Your task to perform on an android device: install app "WhatsApp Messenger" Image 0: 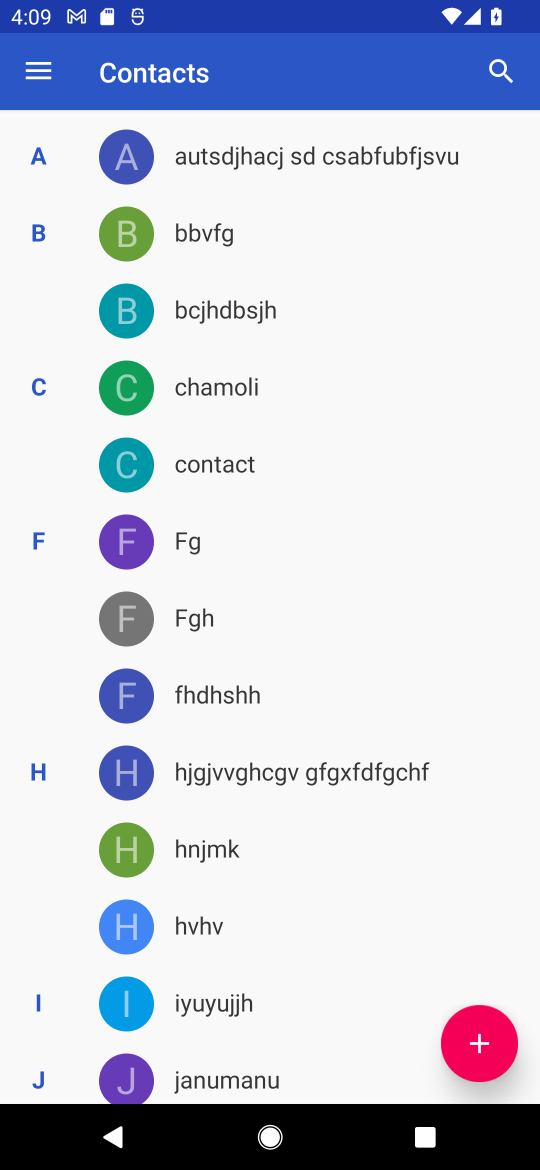
Step 0: press home button
Your task to perform on an android device: install app "WhatsApp Messenger" Image 1: 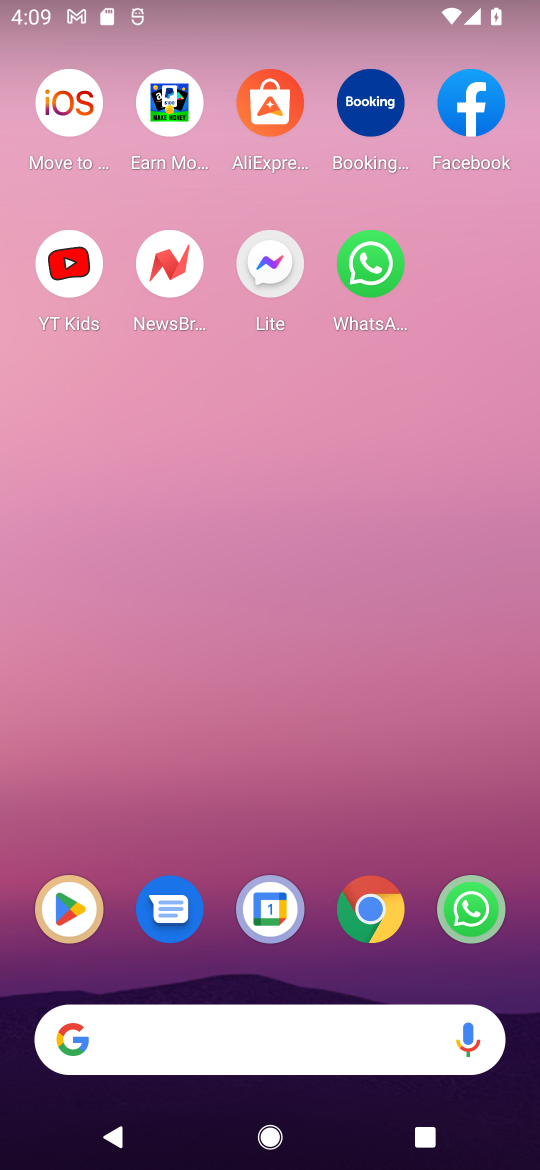
Step 1: click (68, 910)
Your task to perform on an android device: install app "WhatsApp Messenger" Image 2: 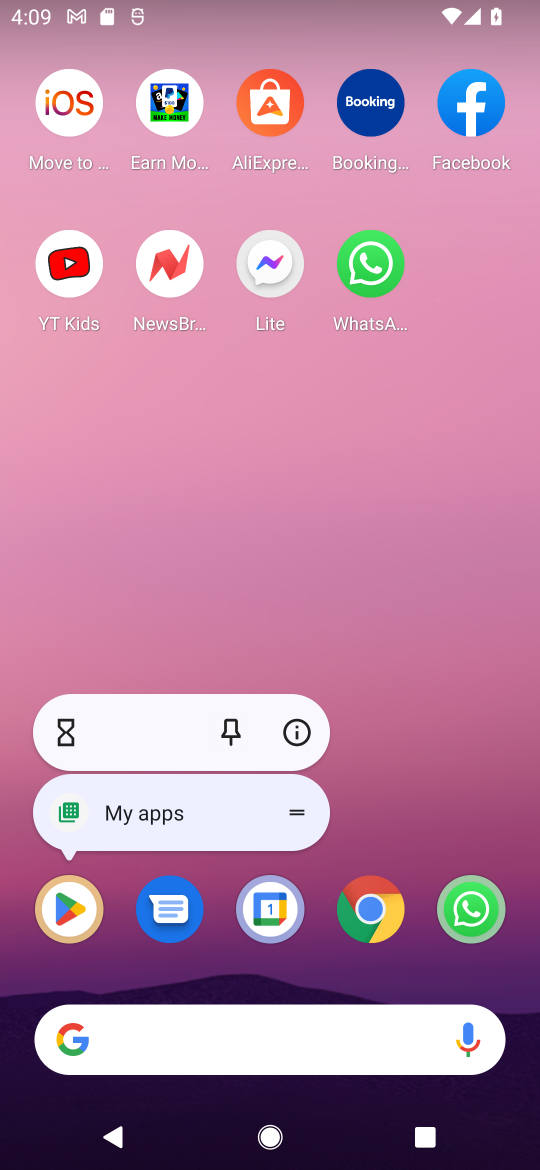
Step 2: click (43, 918)
Your task to perform on an android device: install app "WhatsApp Messenger" Image 3: 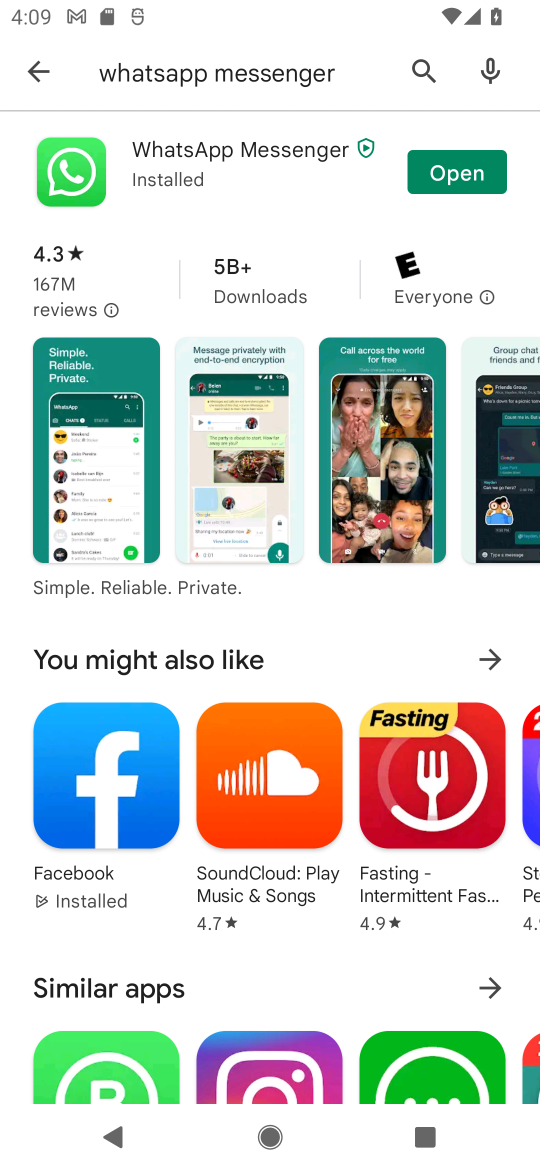
Step 3: click (283, 87)
Your task to perform on an android device: install app "WhatsApp Messenger" Image 4: 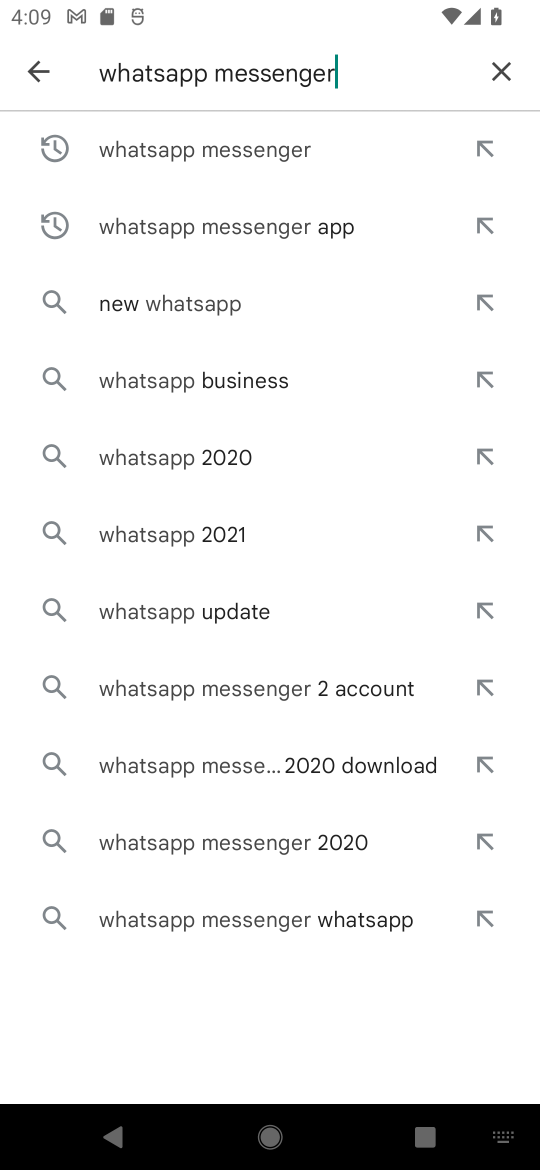
Step 4: click (242, 148)
Your task to perform on an android device: install app "WhatsApp Messenger" Image 5: 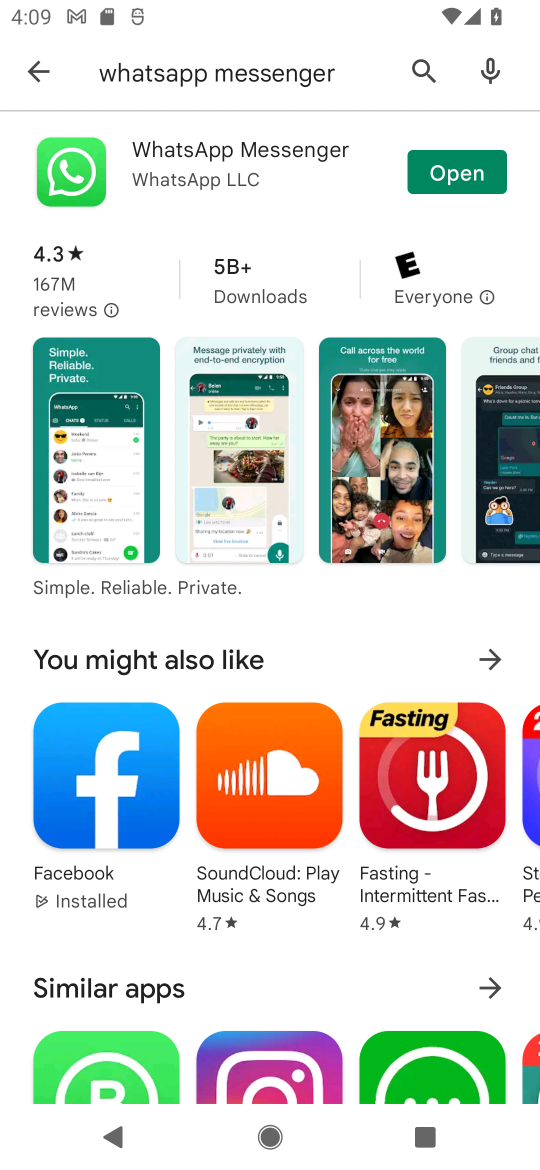
Step 5: task complete